Your task to perform on an android device: check android version Image 0: 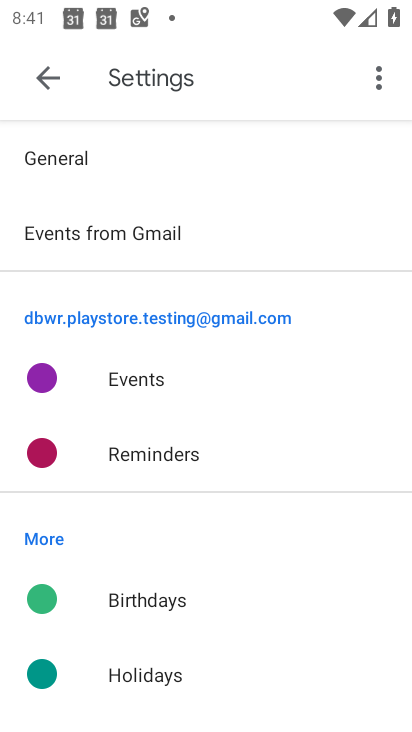
Step 0: press home button
Your task to perform on an android device: check android version Image 1: 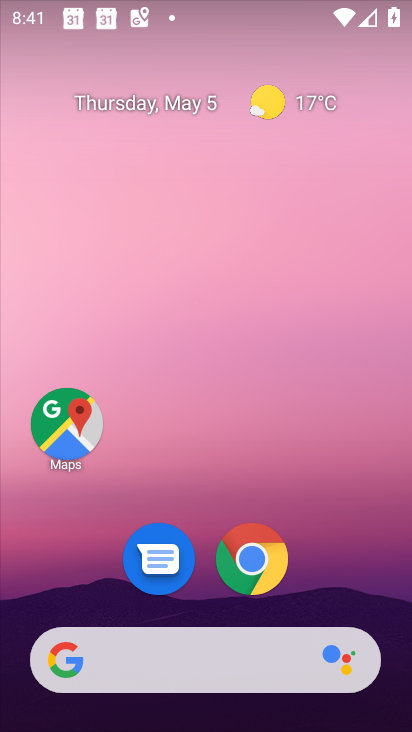
Step 1: drag from (355, 610) to (384, 7)
Your task to perform on an android device: check android version Image 2: 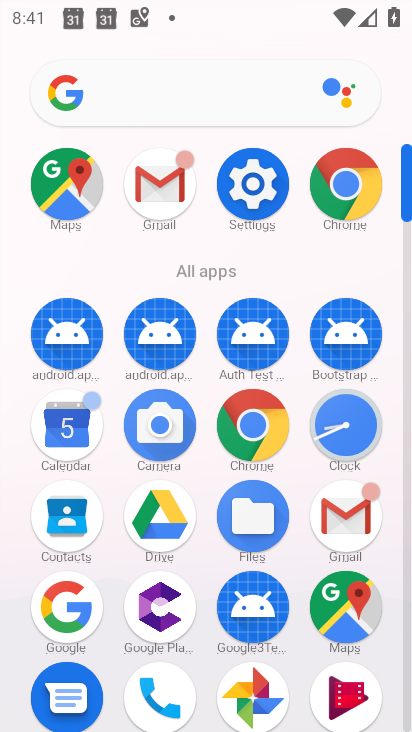
Step 2: click (251, 188)
Your task to perform on an android device: check android version Image 3: 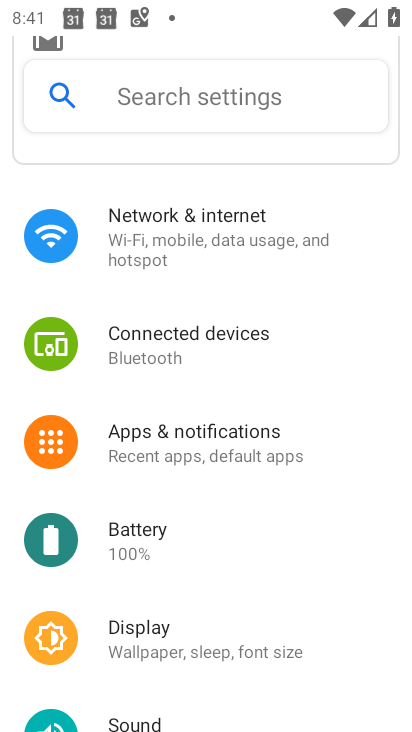
Step 3: drag from (359, 600) to (349, 198)
Your task to perform on an android device: check android version Image 4: 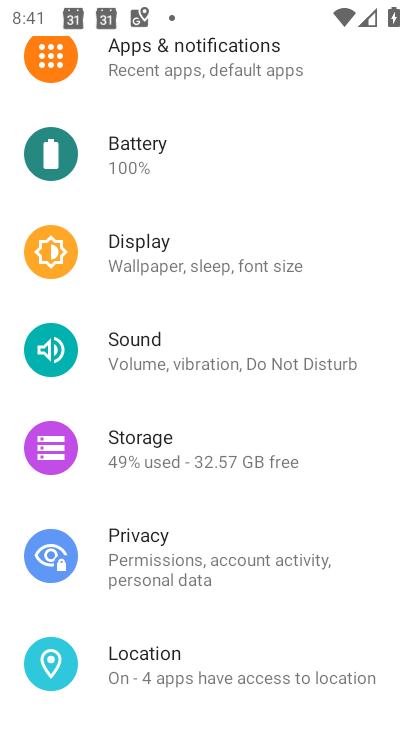
Step 4: drag from (308, 655) to (313, 209)
Your task to perform on an android device: check android version Image 5: 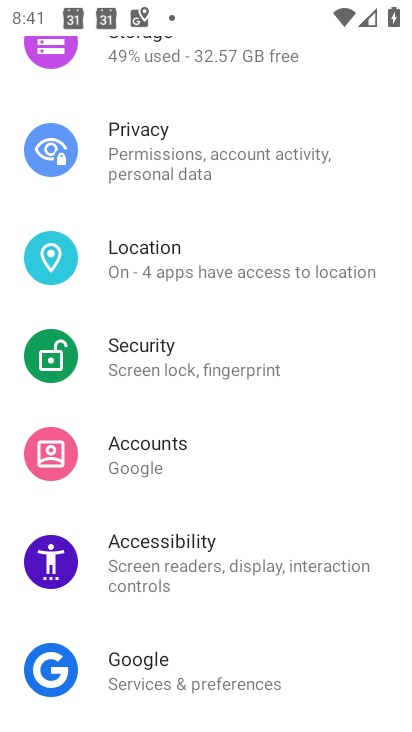
Step 5: drag from (358, 627) to (354, 227)
Your task to perform on an android device: check android version Image 6: 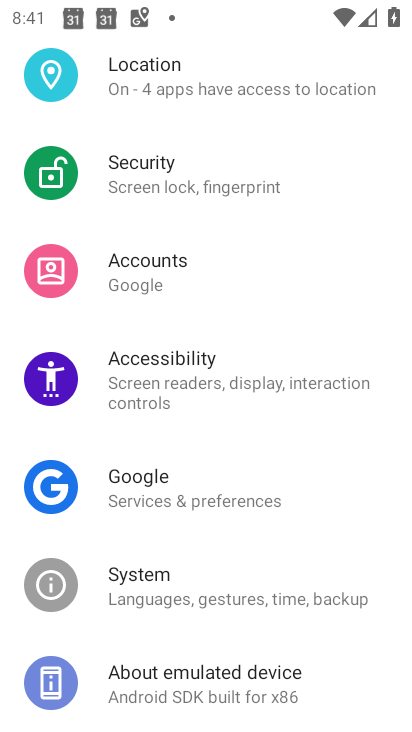
Step 6: click (177, 680)
Your task to perform on an android device: check android version Image 7: 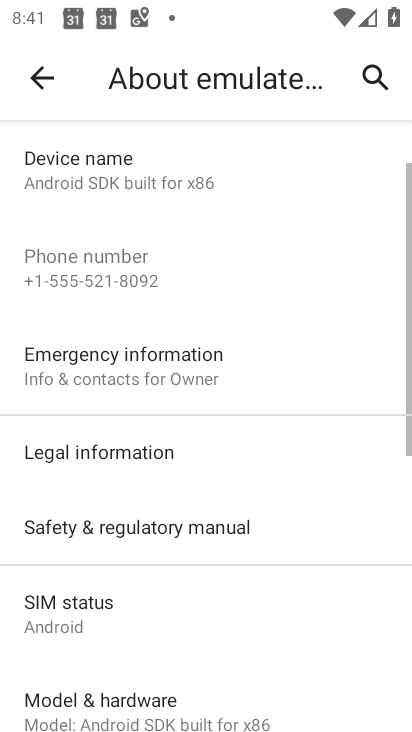
Step 7: drag from (329, 697) to (325, 191)
Your task to perform on an android device: check android version Image 8: 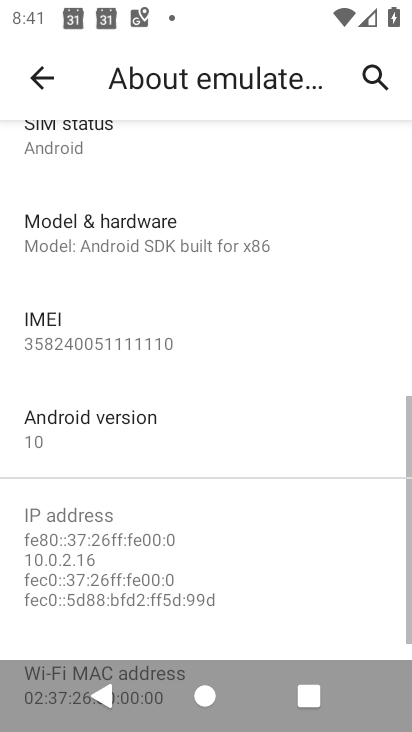
Step 8: click (86, 422)
Your task to perform on an android device: check android version Image 9: 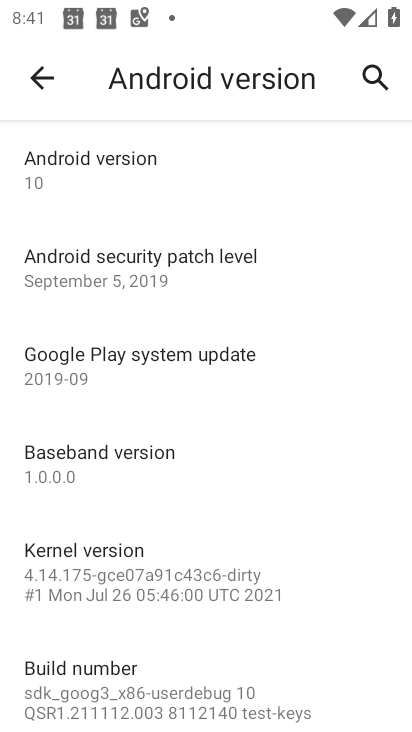
Step 9: task complete